Your task to perform on an android device: Open calendar and show me the third week of next month Image 0: 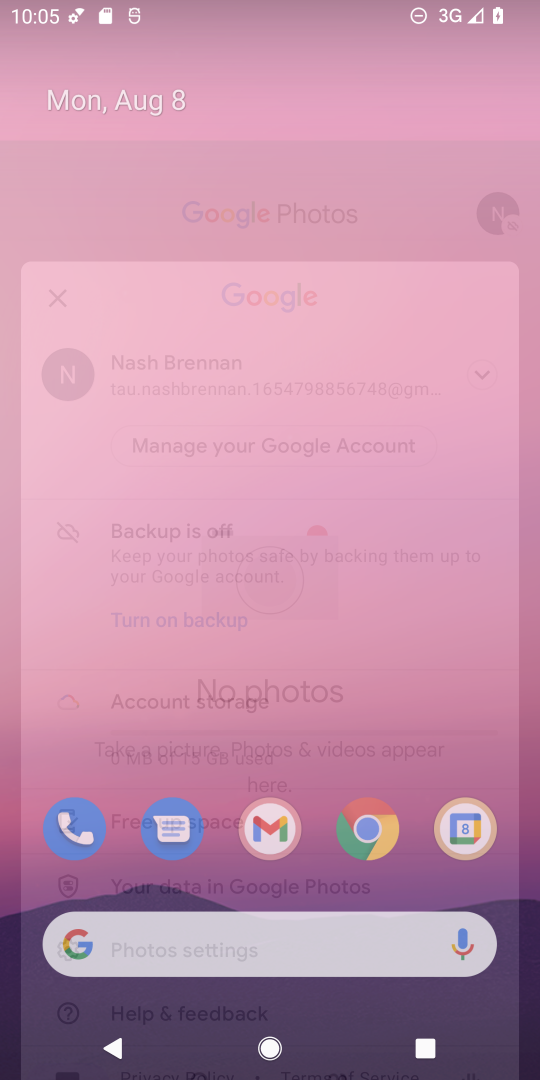
Step 0: press home button
Your task to perform on an android device: Open calendar and show me the third week of next month Image 1: 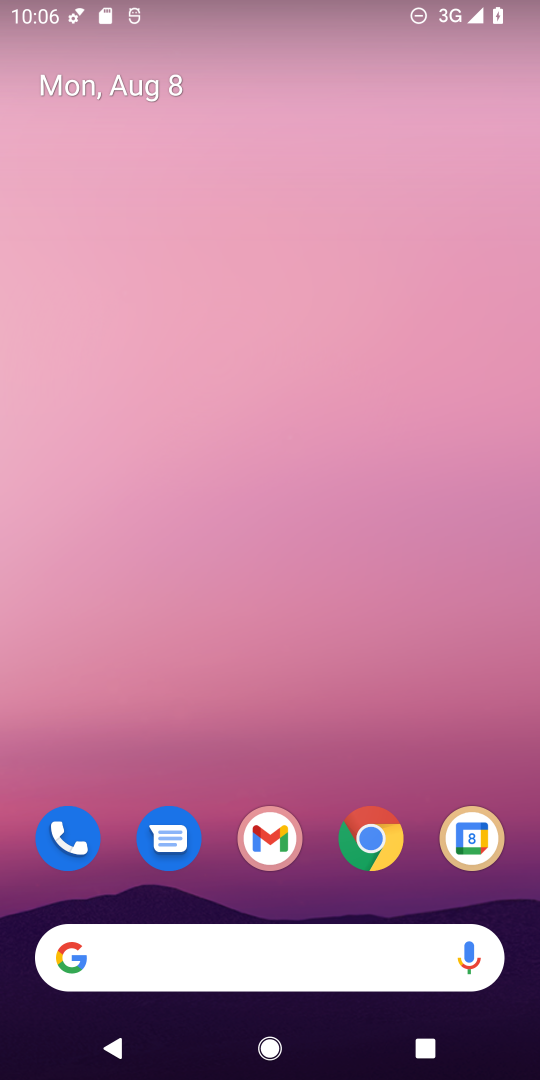
Step 1: drag from (339, 895) to (333, 170)
Your task to perform on an android device: Open calendar and show me the third week of next month Image 2: 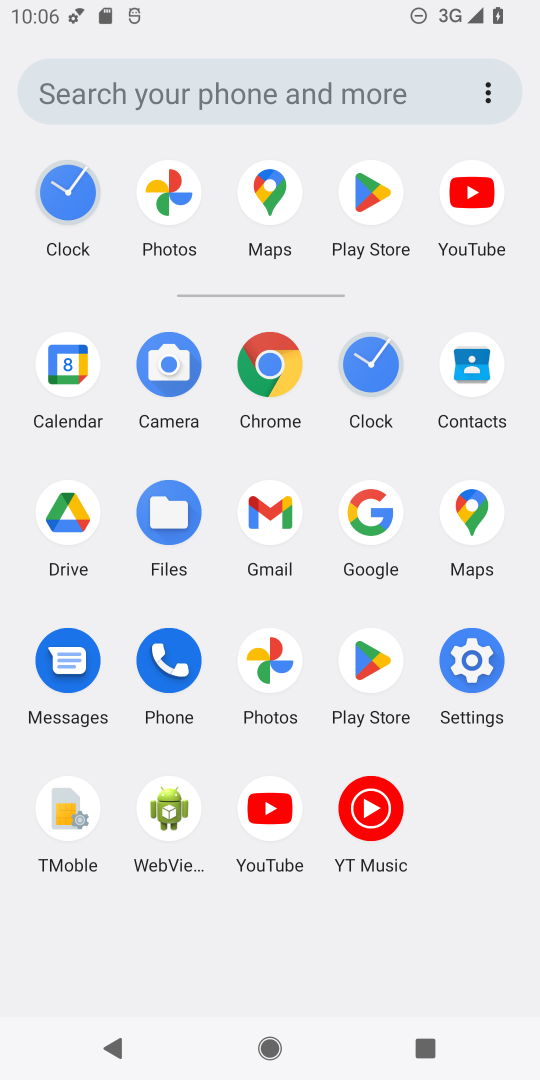
Step 2: click (65, 366)
Your task to perform on an android device: Open calendar and show me the third week of next month Image 3: 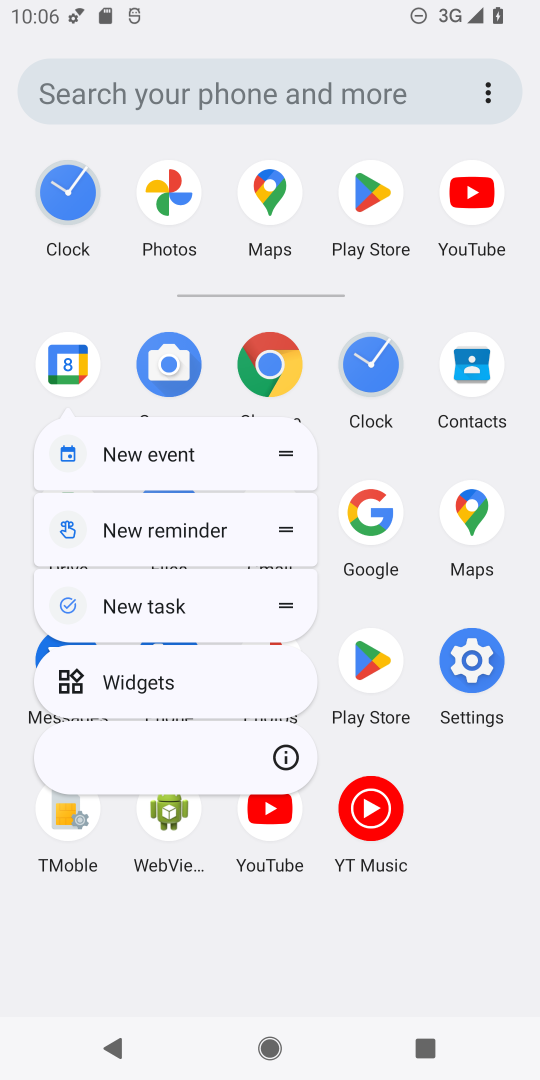
Step 3: click (65, 366)
Your task to perform on an android device: Open calendar and show me the third week of next month Image 4: 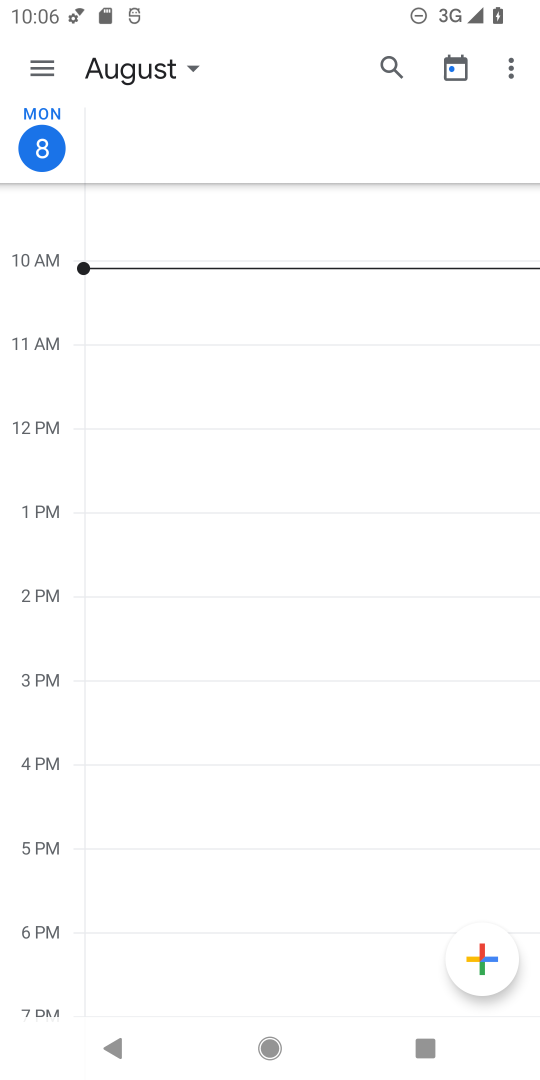
Step 4: click (176, 67)
Your task to perform on an android device: Open calendar and show me the third week of next month Image 5: 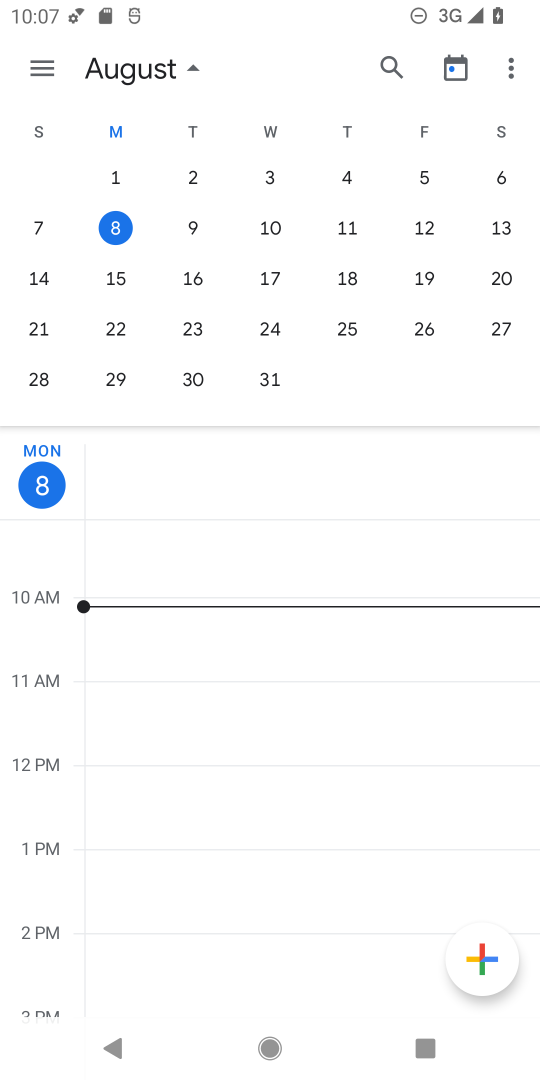
Step 5: drag from (433, 220) to (42, 237)
Your task to perform on an android device: Open calendar and show me the third week of next month Image 6: 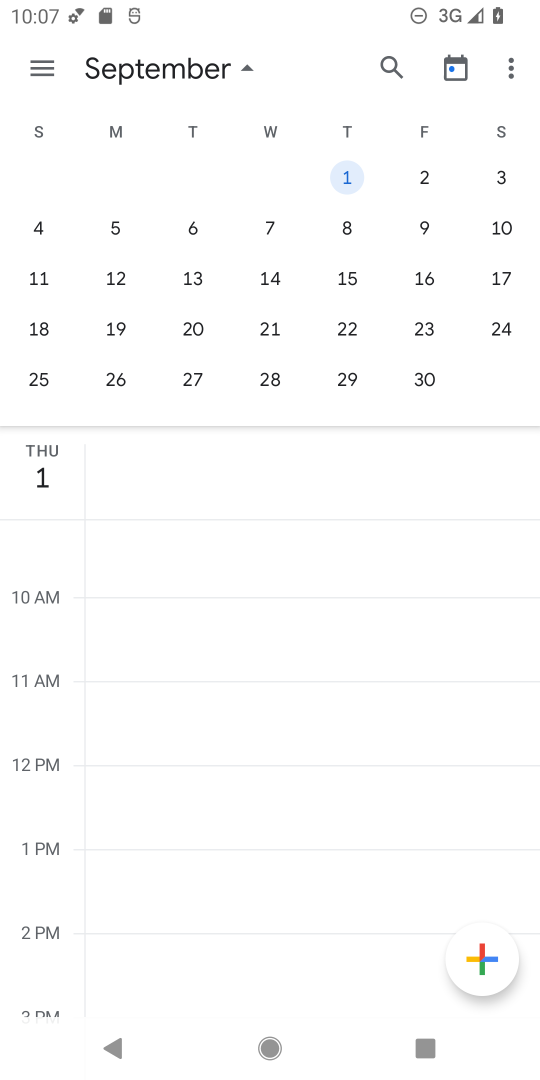
Step 6: click (115, 277)
Your task to perform on an android device: Open calendar and show me the third week of next month Image 7: 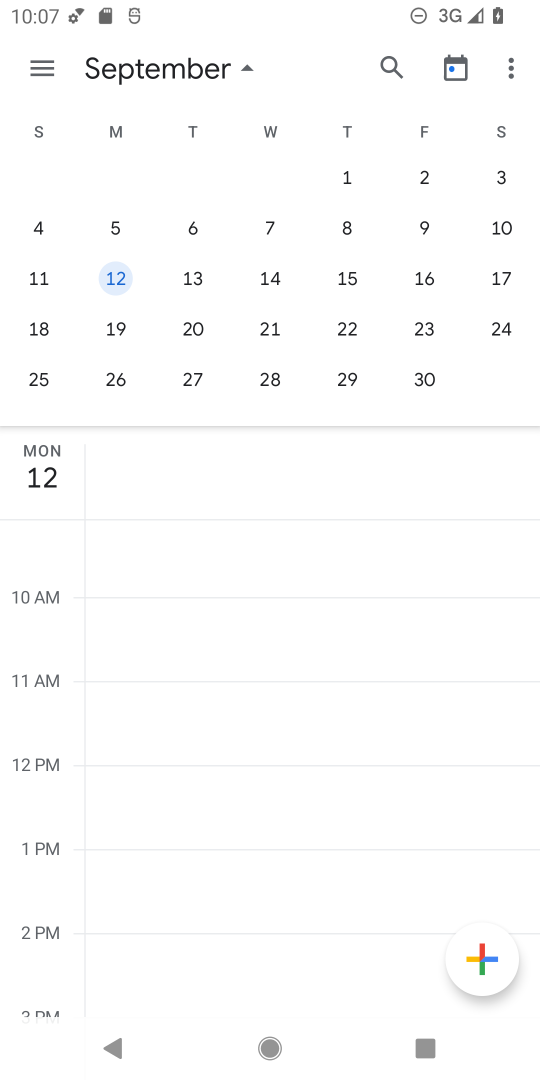
Step 7: click (193, 283)
Your task to perform on an android device: Open calendar and show me the third week of next month Image 8: 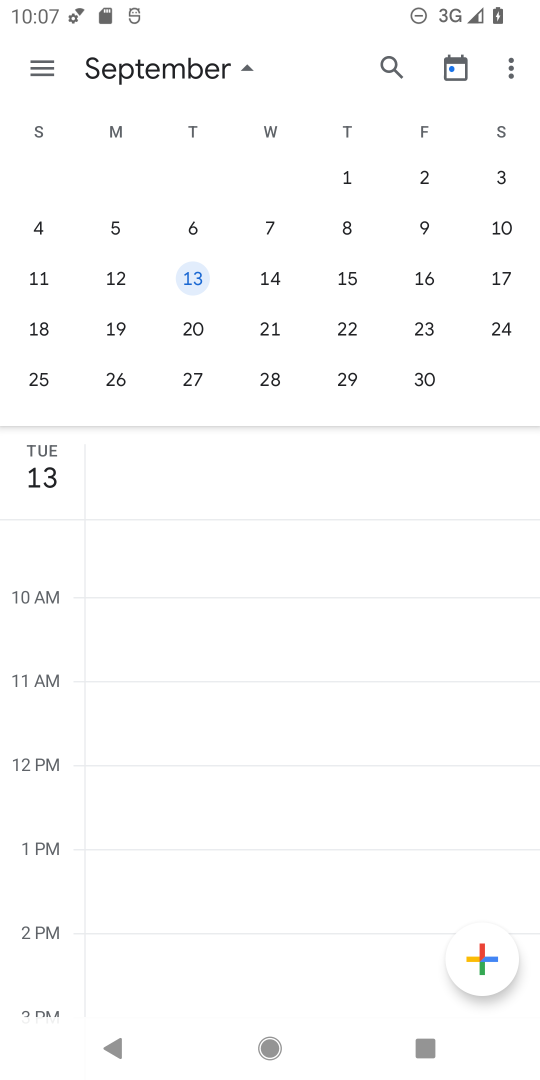
Step 8: click (268, 281)
Your task to perform on an android device: Open calendar and show me the third week of next month Image 9: 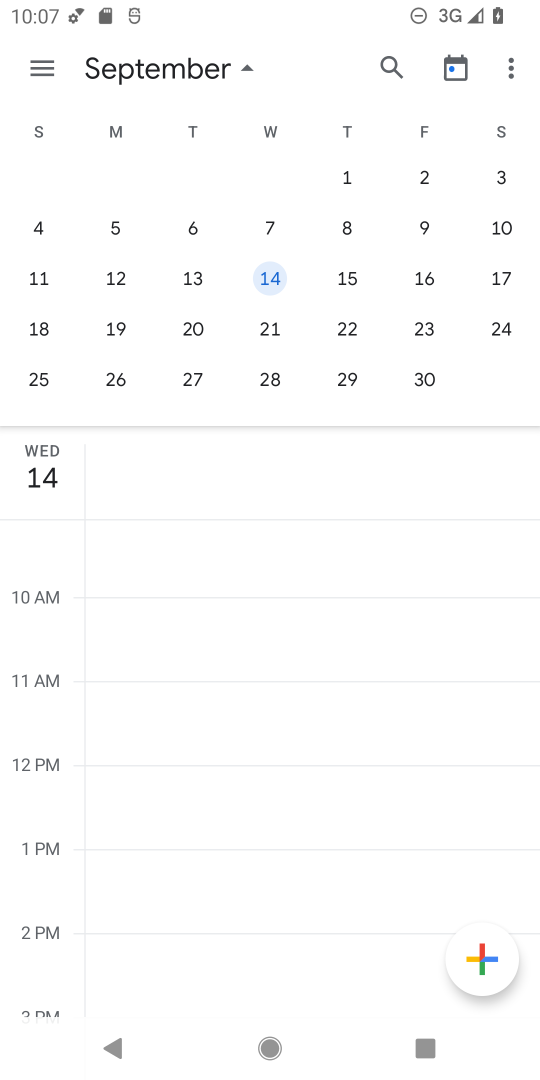
Step 9: click (340, 281)
Your task to perform on an android device: Open calendar and show me the third week of next month Image 10: 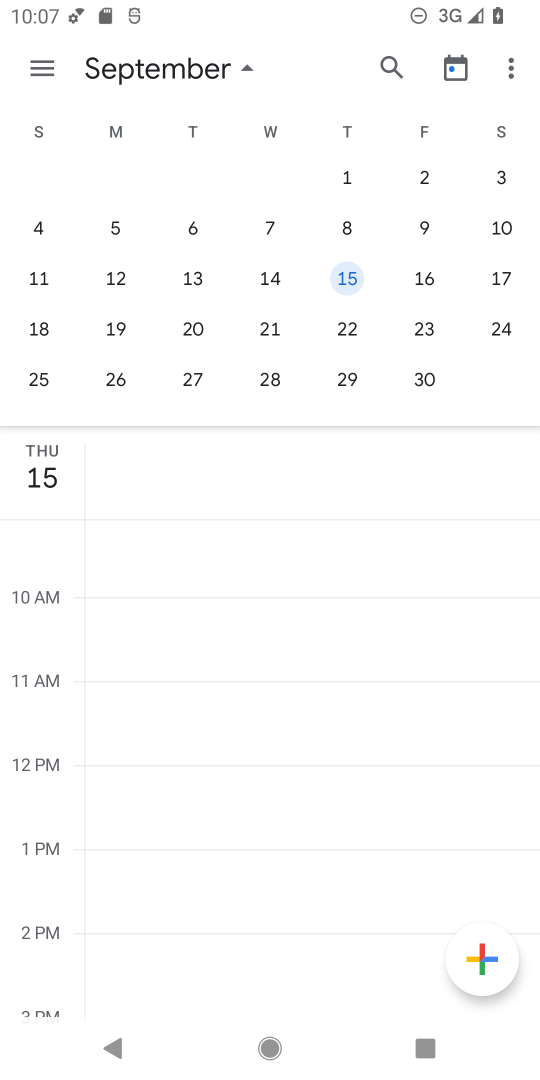
Step 10: click (430, 286)
Your task to perform on an android device: Open calendar and show me the third week of next month Image 11: 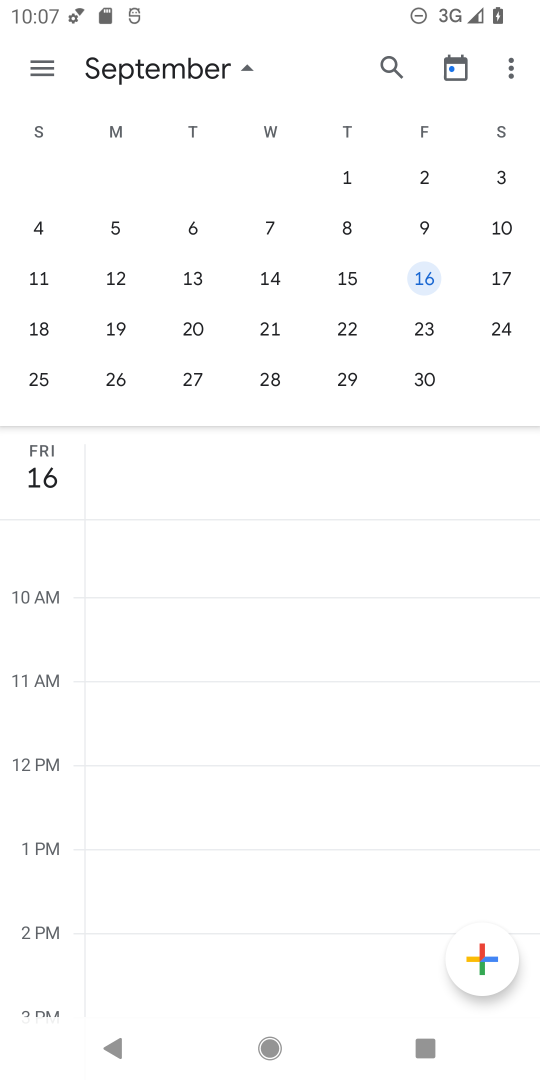
Step 11: click (502, 279)
Your task to perform on an android device: Open calendar and show me the third week of next month Image 12: 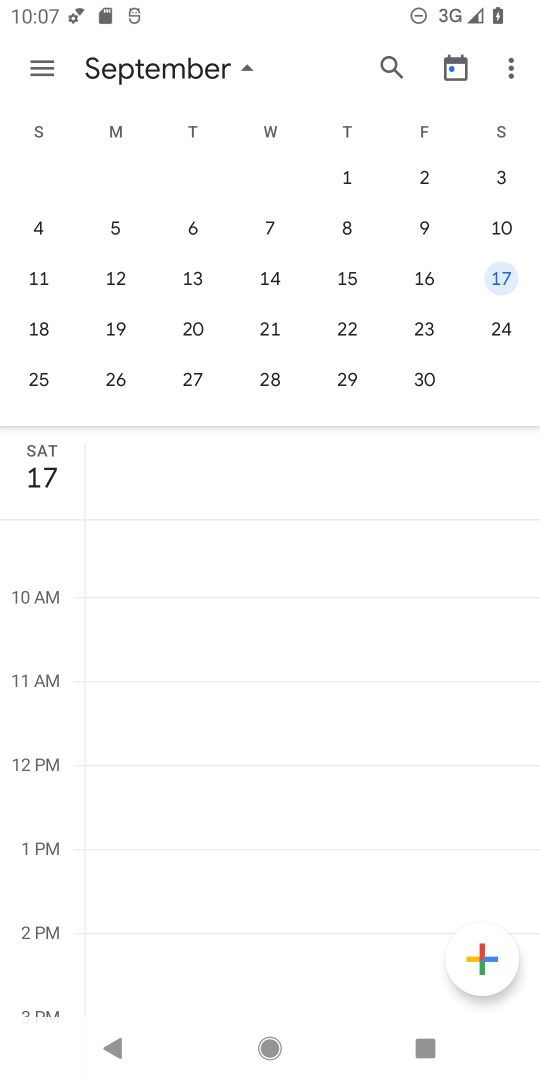
Step 12: click (32, 331)
Your task to perform on an android device: Open calendar and show me the third week of next month Image 13: 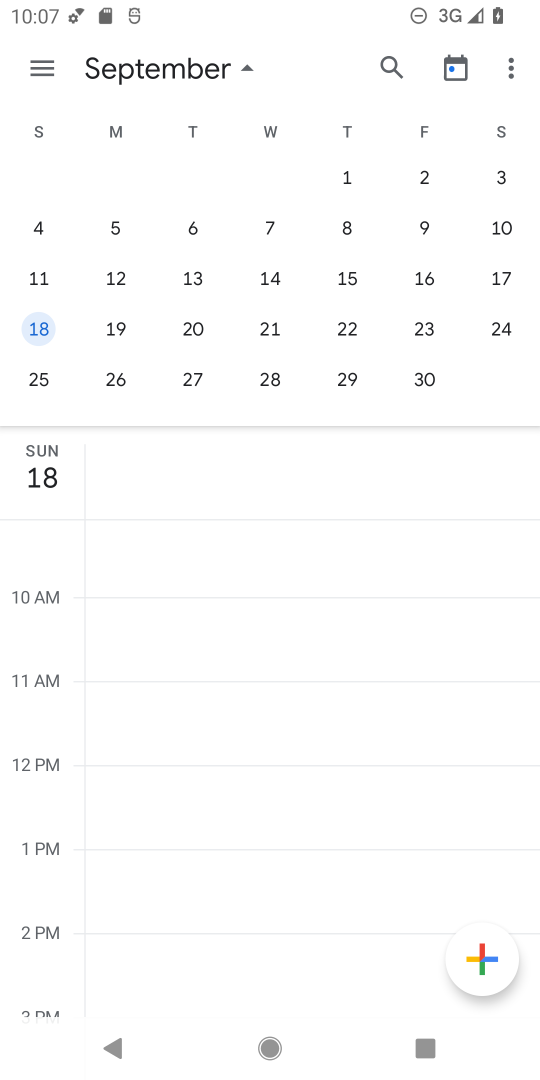
Step 13: task complete